Your task to perform on an android device: Go to Google Image 0: 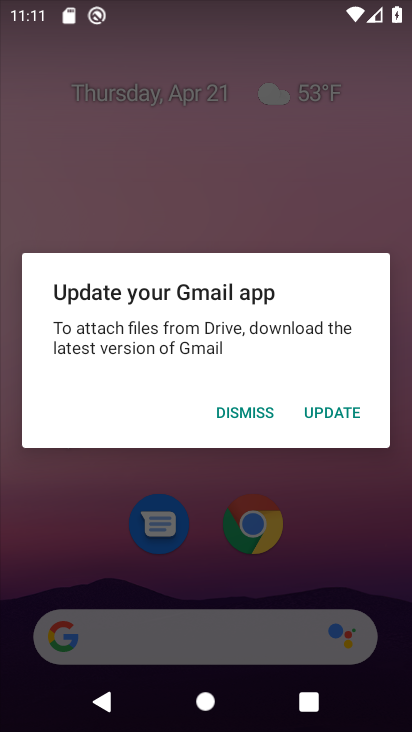
Step 0: press home button
Your task to perform on an android device: Go to Google Image 1: 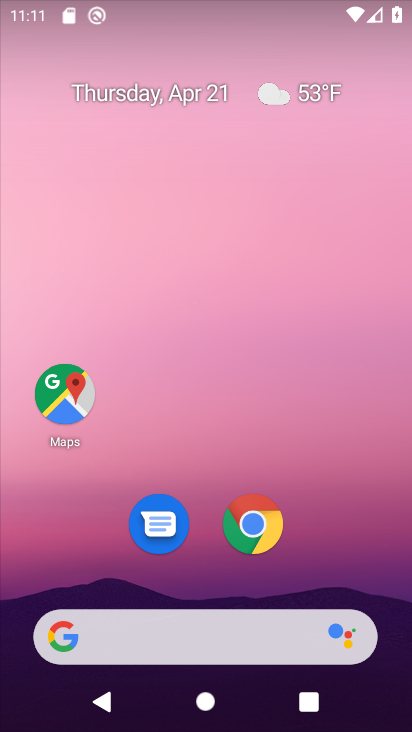
Step 1: click (138, 623)
Your task to perform on an android device: Go to Google Image 2: 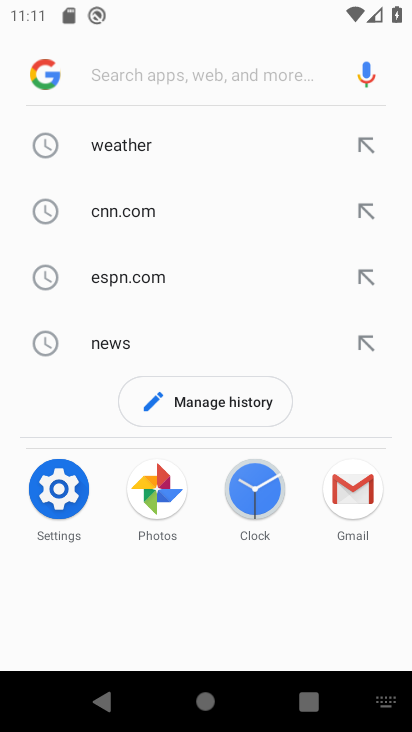
Step 2: click (41, 76)
Your task to perform on an android device: Go to Google Image 3: 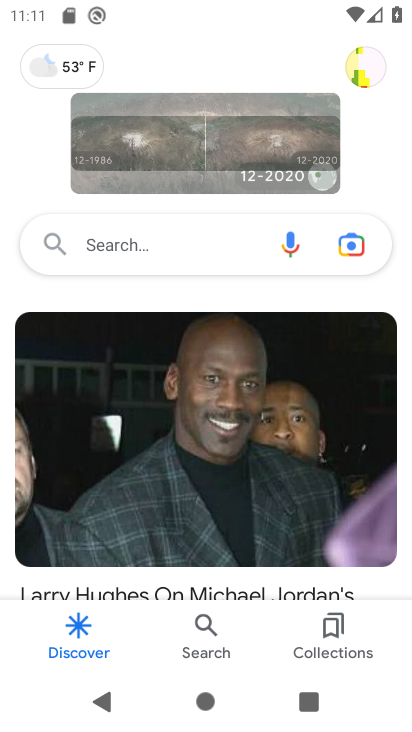
Step 3: task complete